Your task to perform on an android device: What's the weather? Image 0: 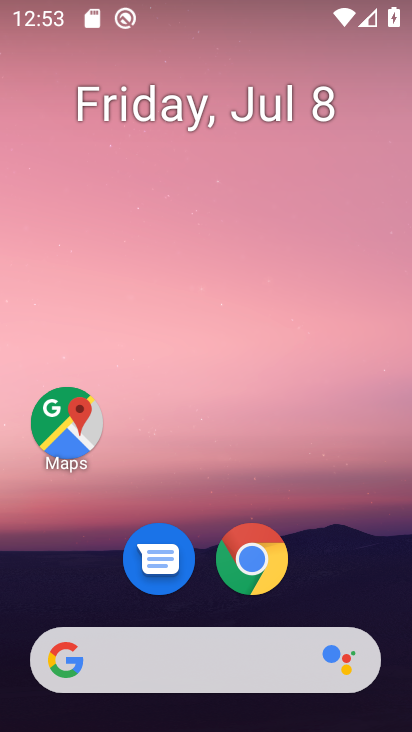
Step 0: drag from (223, 624) to (176, 86)
Your task to perform on an android device: What's the weather? Image 1: 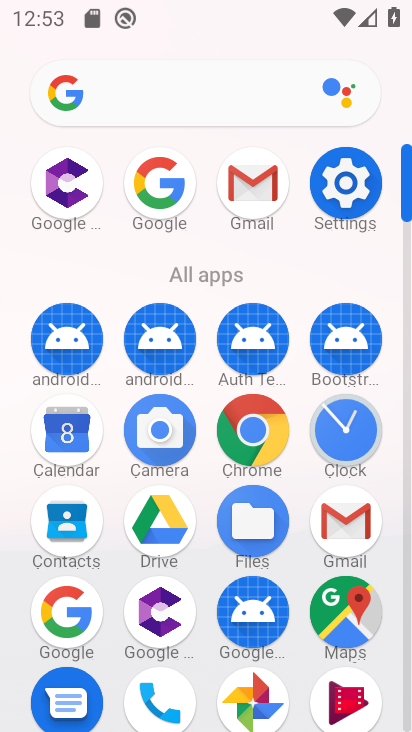
Step 1: click (84, 599)
Your task to perform on an android device: What's the weather? Image 2: 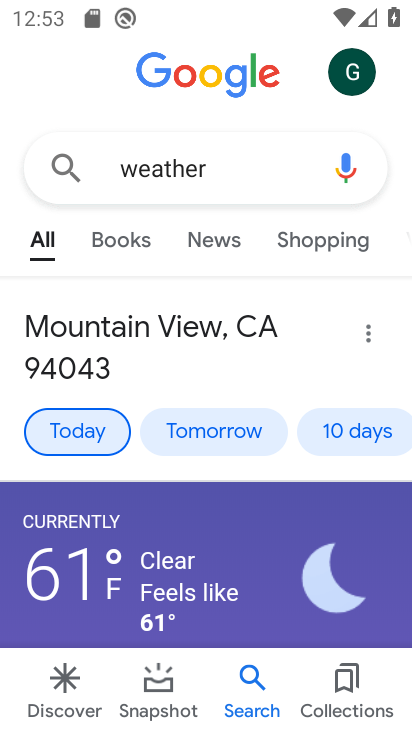
Step 2: task complete